Your task to perform on an android device: star an email in the gmail app Image 0: 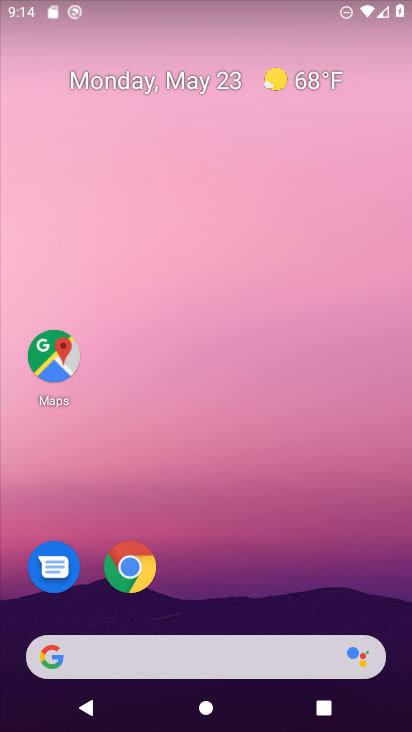
Step 0: drag from (209, 598) to (272, 20)
Your task to perform on an android device: star an email in the gmail app Image 1: 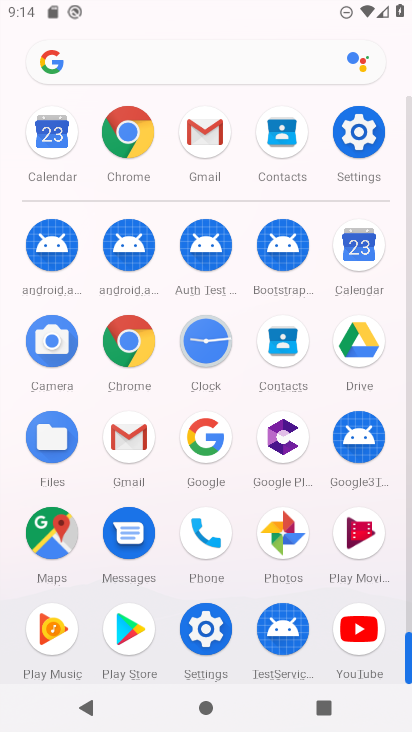
Step 1: click (209, 112)
Your task to perform on an android device: star an email in the gmail app Image 2: 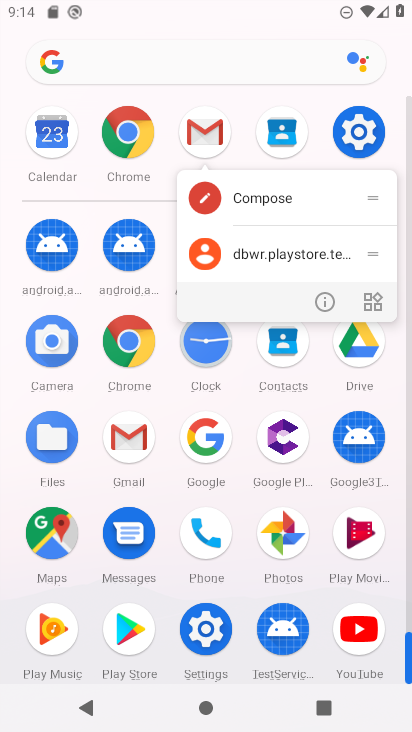
Step 2: click (324, 294)
Your task to perform on an android device: star an email in the gmail app Image 3: 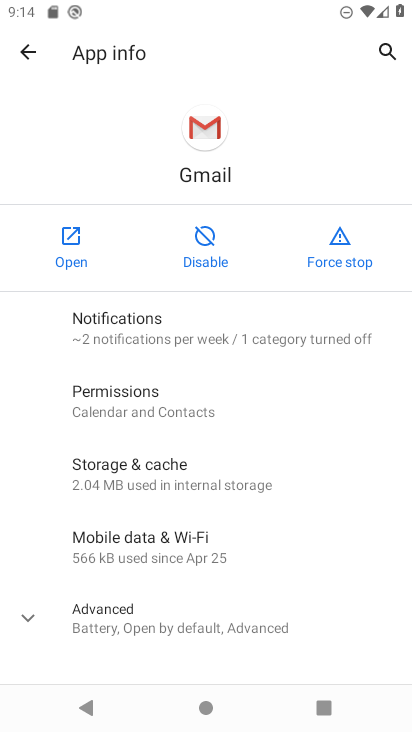
Step 3: click (75, 234)
Your task to perform on an android device: star an email in the gmail app Image 4: 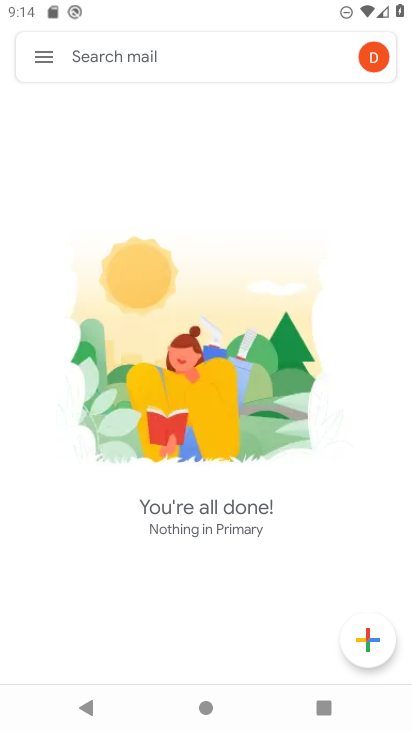
Step 4: click (38, 60)
Your task to perform on an android device: star an email in the gmail app Image 5: 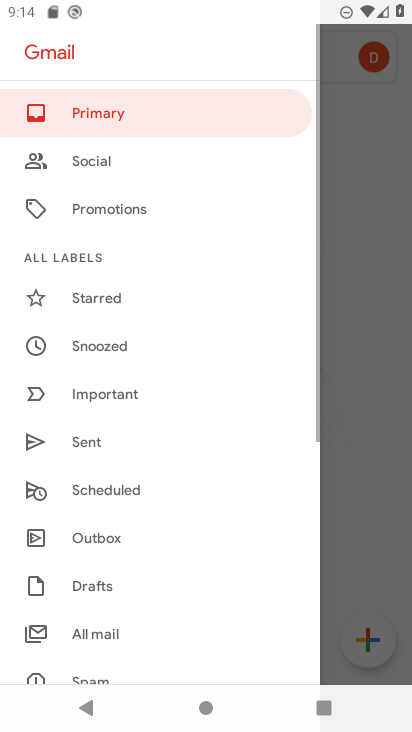
Step 5: click (118, 296)
Your task to perform on an android device: star an email in the gmail app Image 6: 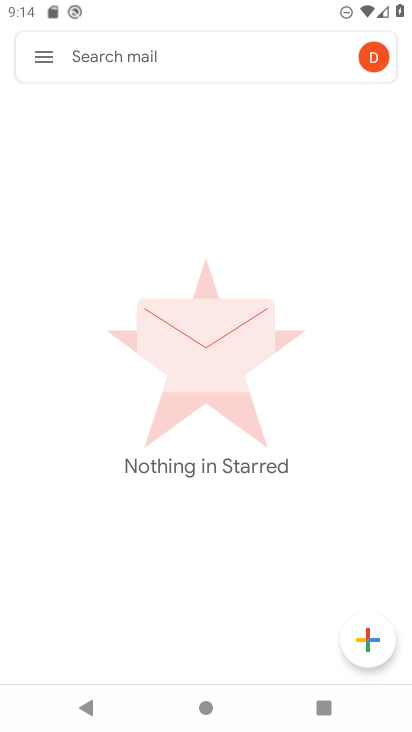
Step 6: task complete